Your task to perform on an android device: Go to Yahoo.com Image 0: 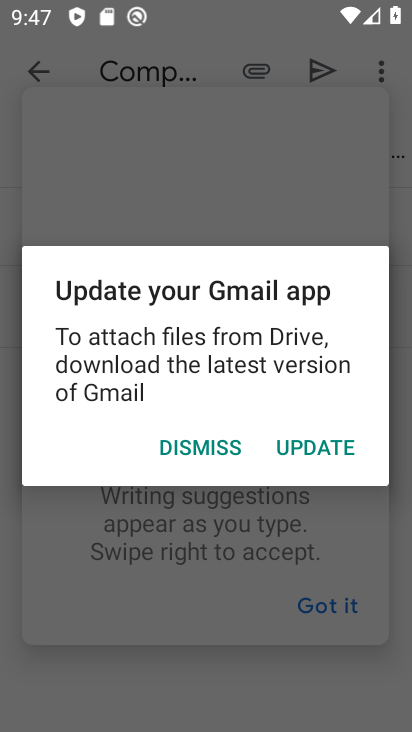
Step 0: press home button
Your task to perform on an android device: Go to Yahoo.com Image 1: 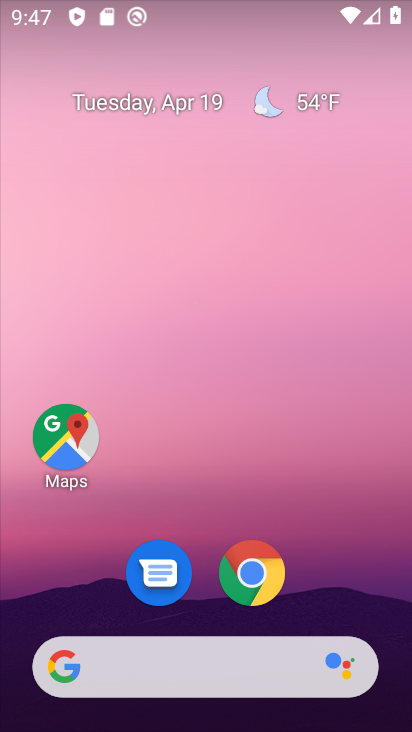
Step 1: click (252, 579)
Your task to perform on an android device: Go to Yahoo.com Image 2: 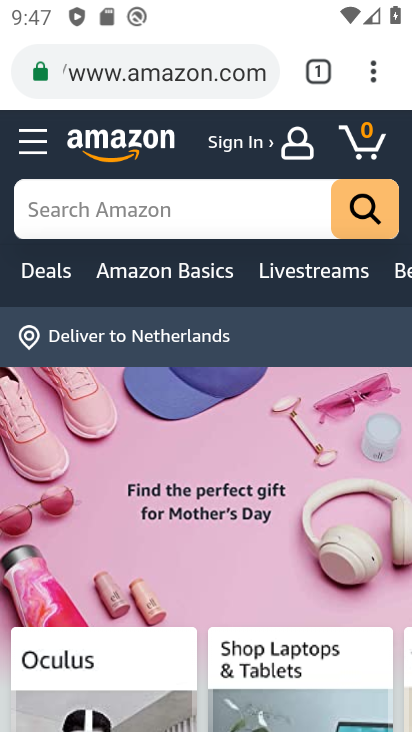
Step 2: click (373, 68)
Your task to perform on an android device: Go to Yahoo.com Image 3: 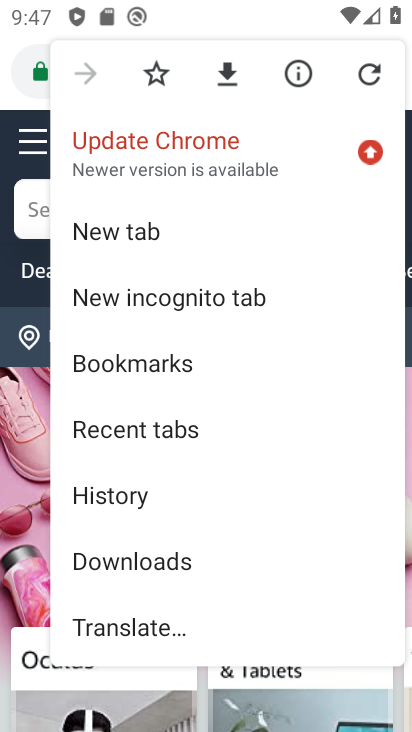
Step 3: click (120, 234)
Your task to perform on an android device: Go to Yahoo.com Image 4: 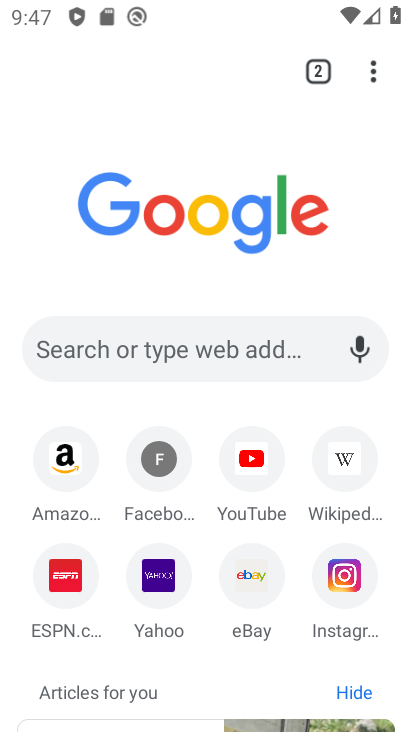
Step 4: click (157, 568)
Your task to perform on an android device: Go to Yahoo.com Image 5: 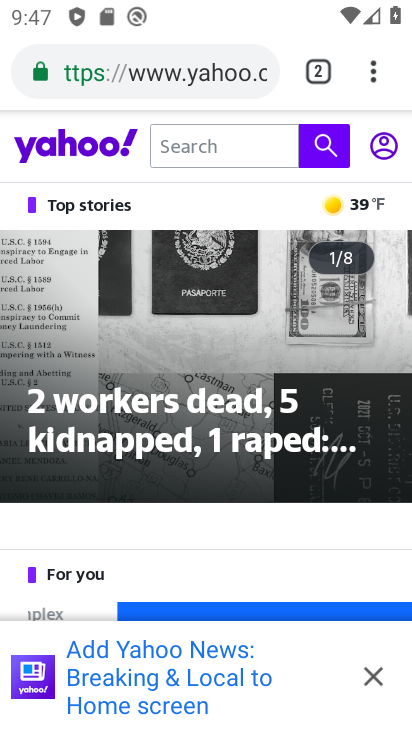
Step 5: task complete